Your task to perform on an android device: open chrome privacy settings Image 0: 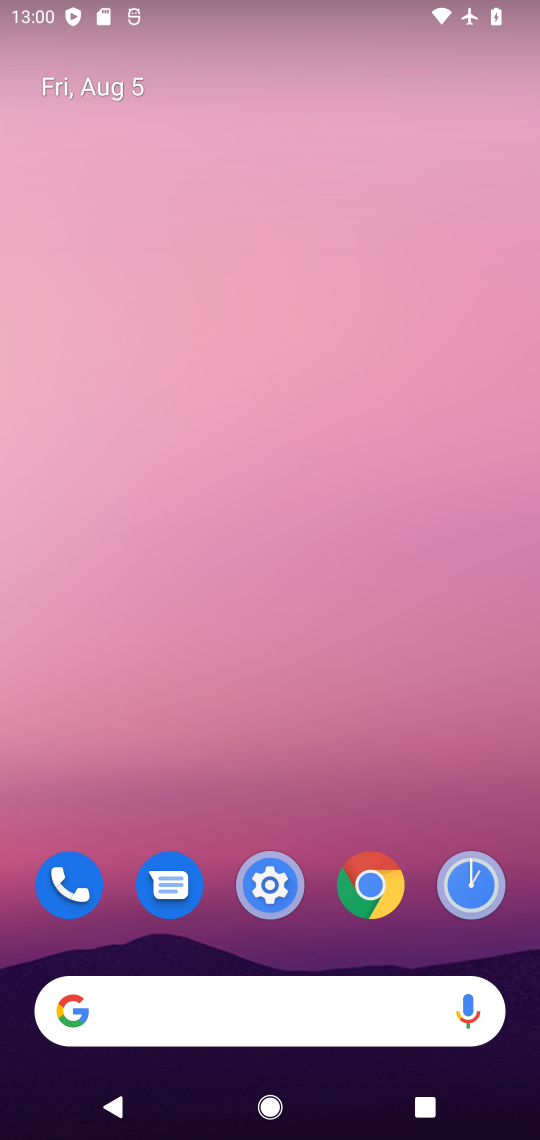
Step 0: click (378, 884)
Your task to perform on an android device: open chrome privacy settings Image 1: 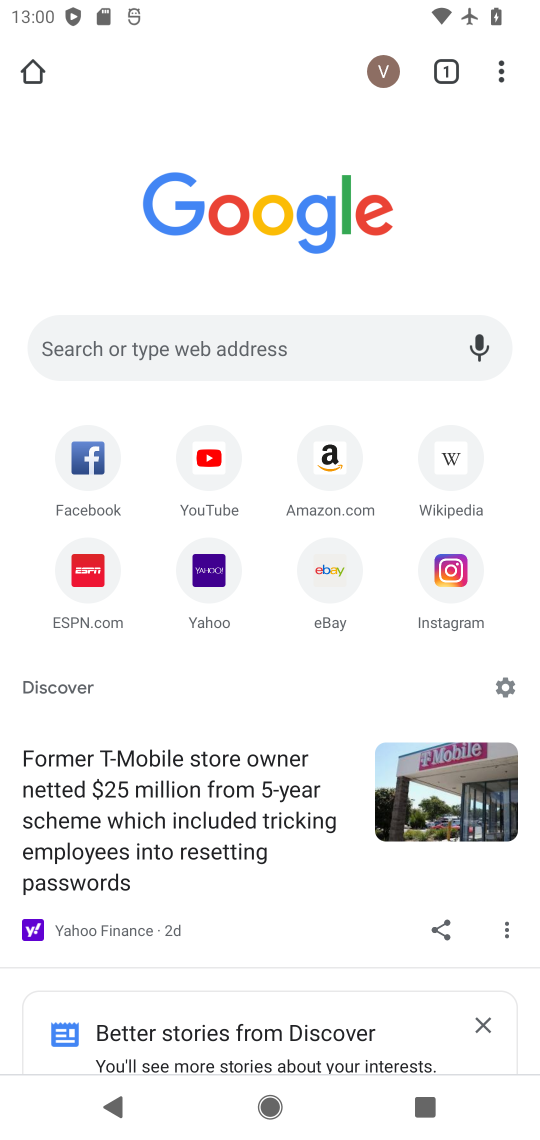
Step 1: click (504, 80)
Your task to perform on an android device: open chrome privacy settings Image 2: 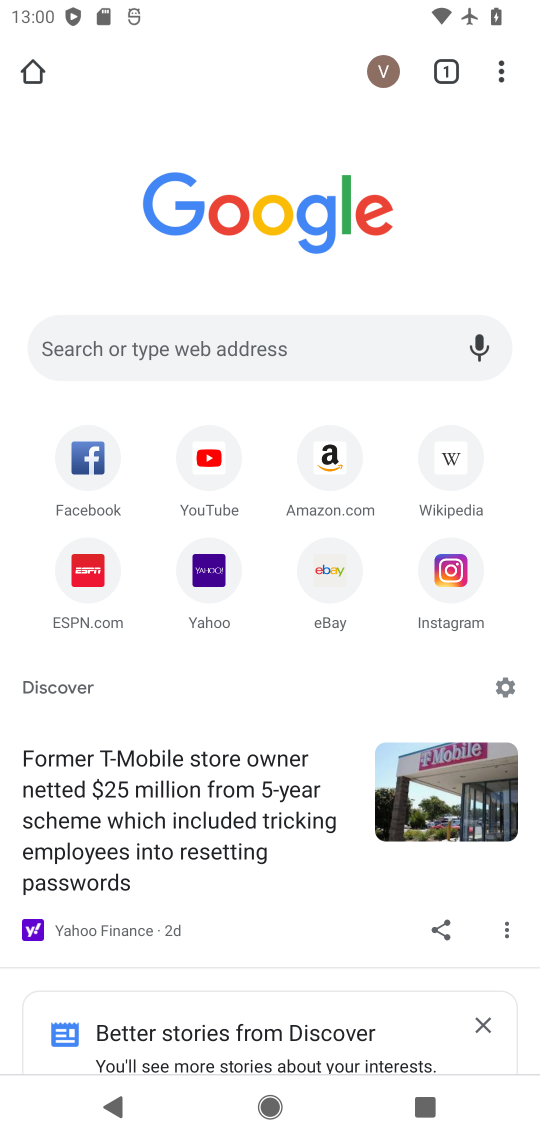
Step 2: click (504, 73)
Your task to perform on an android device: open chrome privacy settings Image 3: 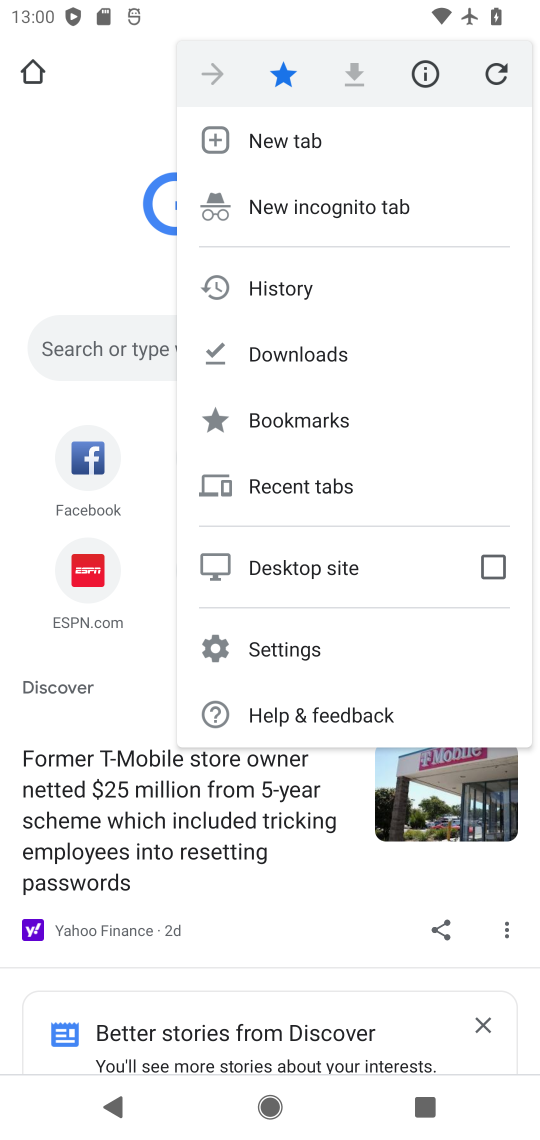
Step 3: click (301, 646)
Your task to perform on an android device: open chrome privacy settings Image 4: 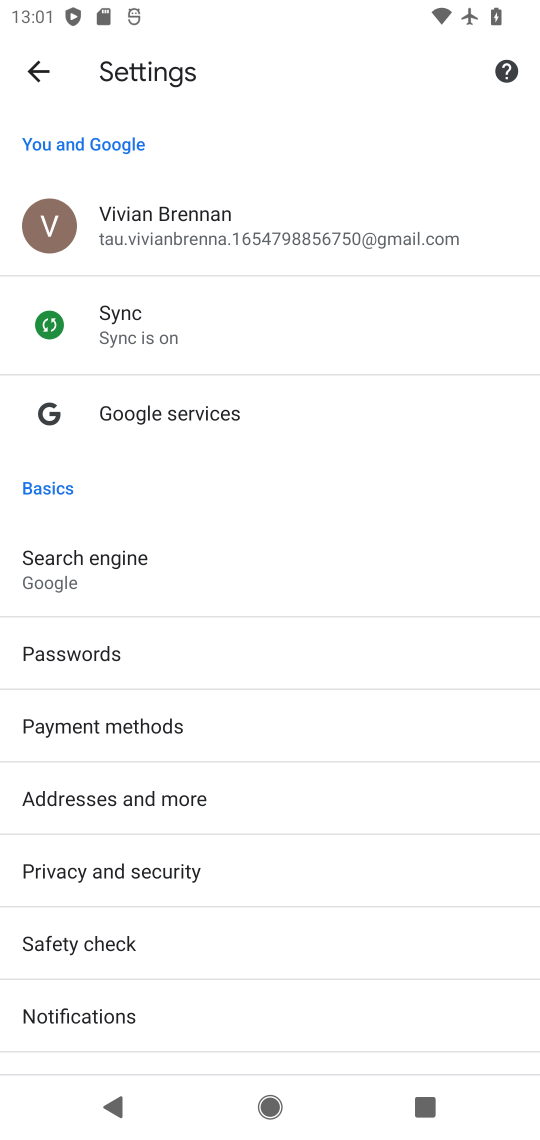
Step 4: drag from (216, 934) to (210, 458)
Your task to perform on an android device: open chrome privacy settings Image 5: 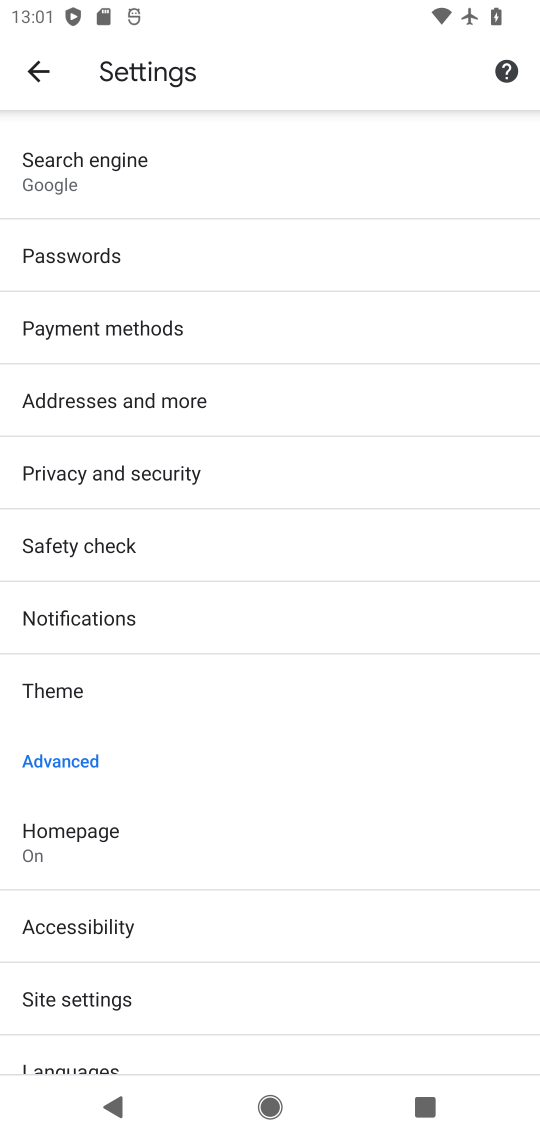
Step 5: click (365, 477)
Your task to perform on an android device: open chrome privacy settings Image 6: 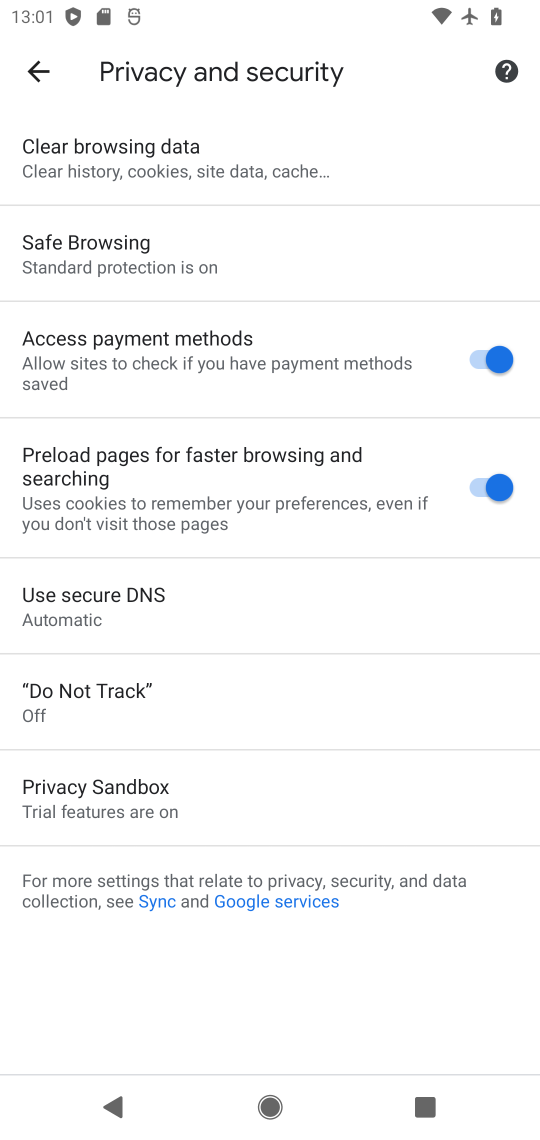
Step 6: task complete